Your task to perform on an android device: Open the phone app and click the voicemail tab. Image 0: 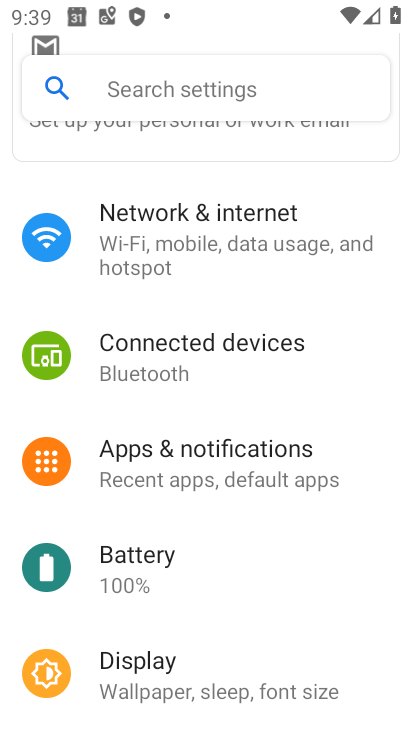
Step 0: press home button
Your task to perform on an android device: Open the phone app and click the voicemail tab. Image 1: 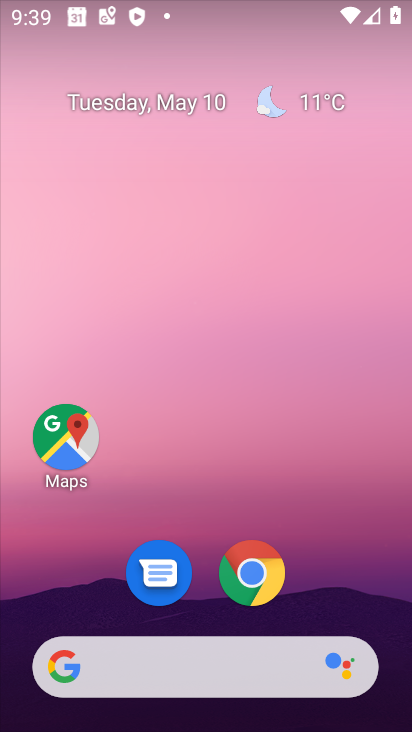
Step 1: drag from (341, 593) to (337, 4)
Your task to perform on an android device: Open the phone app and click the voicemail tab. Image 2: 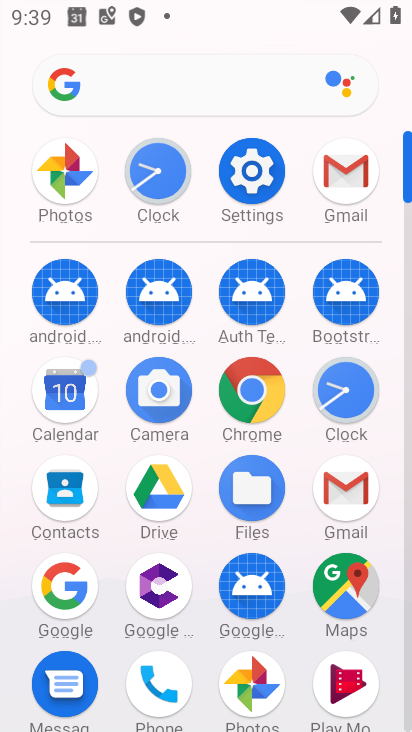
Step 2: click (160, 691)
Your task to perform on an android device: Open the phone app and click the voicemail tab. Image 3: 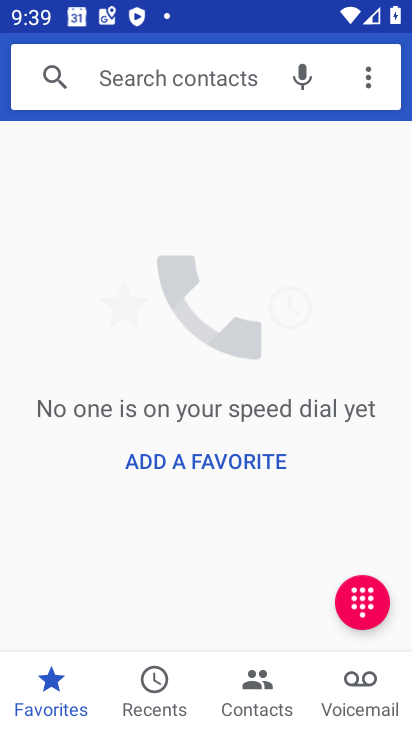
Step 3: click (366, 713)
Your task to perform on an android device: Open the phone app and click the voicemail tab. Image 4: 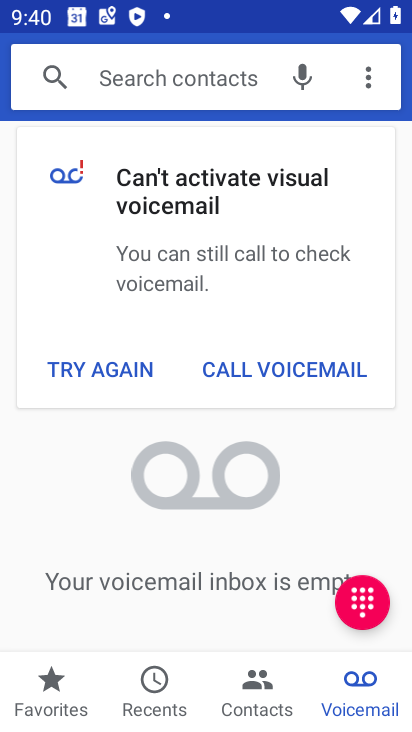
Step 4: task complete